Your task to perform on an android device: turn off sleep mode Image 0: 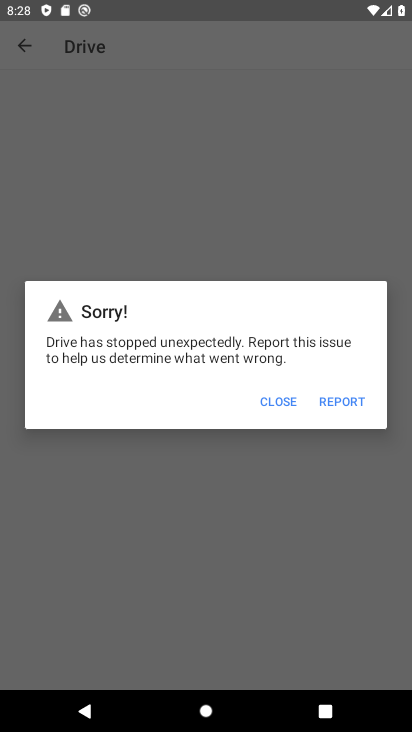
Step 0: press home button
Your task to perform on an android device: turn off sleep mode Image 1: 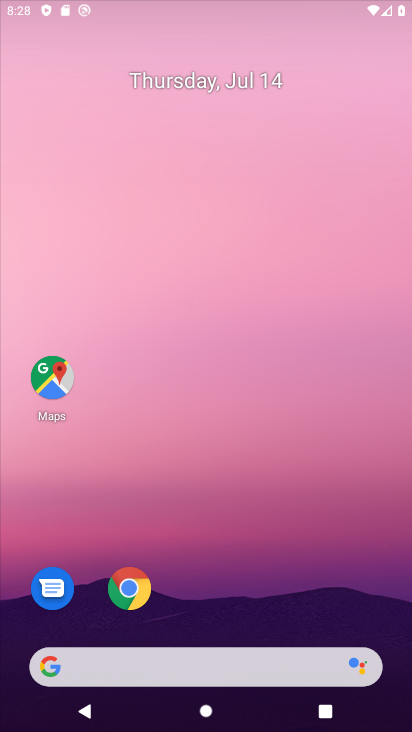
Step 1: drag from (258, 581) to (274, 103)
Your task to perform on an android device: turn off sleep mode Image 2: 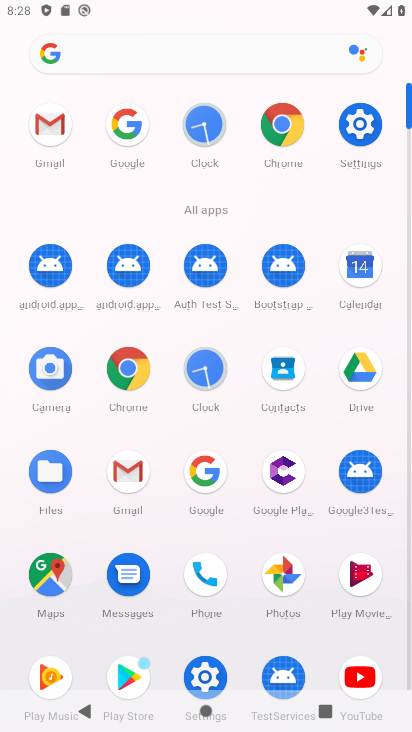
Step 2: click (357, 124)
Your task to perform on an android device: turn off sleep mode Image 3: 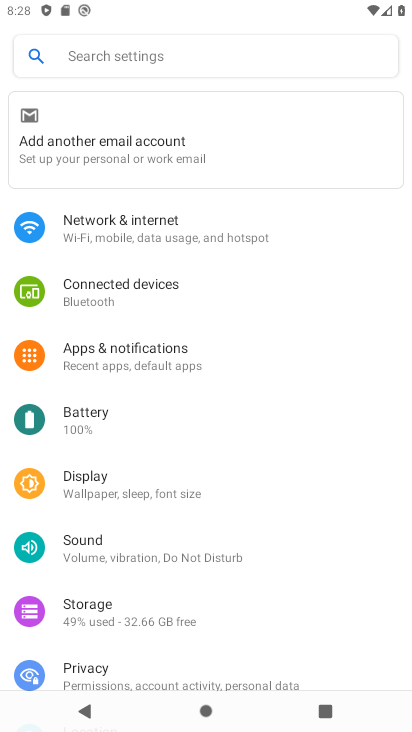
Step 3: drag from (204, 634) to (239, 260)
Your task to perform on an android device: turn off sleep mode Image 4: 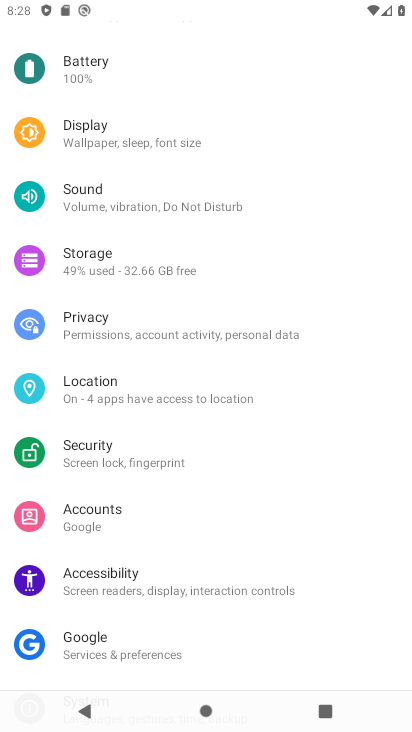
Step 4: click (154, 136)
Your task to perform on an android device: turn off sleep mode Image 5: 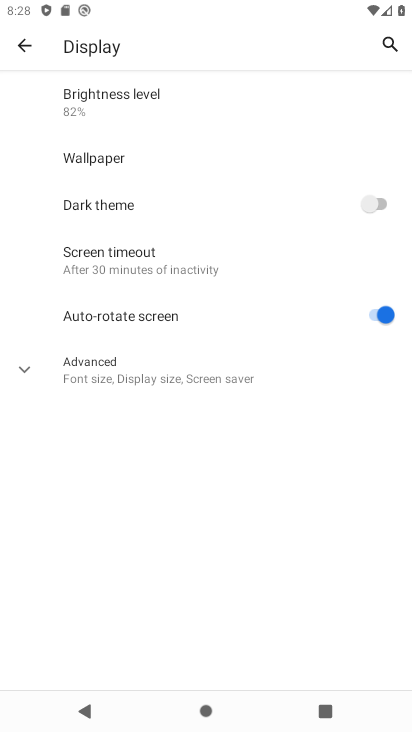
Step 5: click (95, 370)
Your task to perform on an android device: turn off sleep mode Image 6: 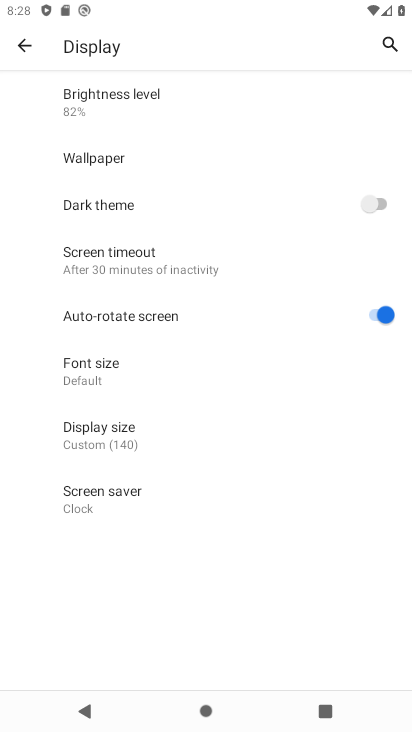
Step 6: click (118, 266)
Your task to perform on an android device: turn off sleep mode Image 7: 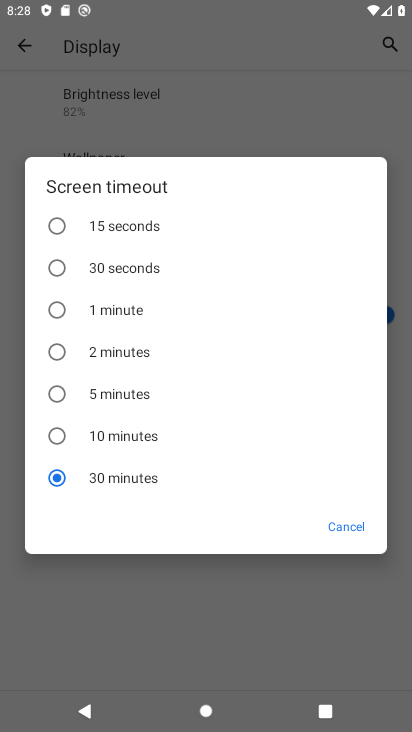
Step 7: task complete